Your task to perform on an android device: change the clock display to analog Image 0: 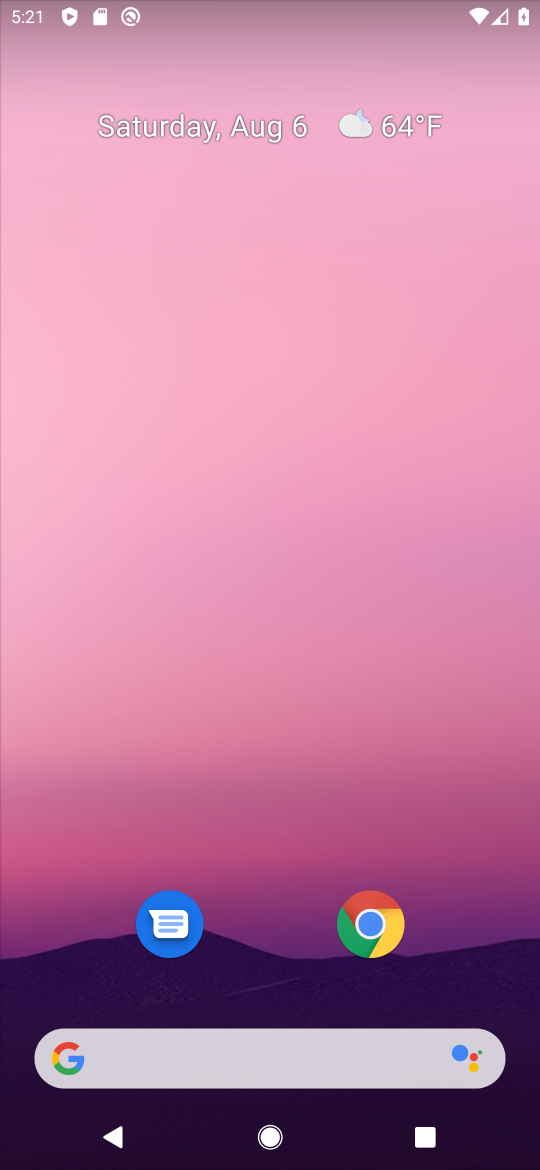
Step 0: drag from (220, 814) to (186, 95)
Your task to perform on an android device: change the clock display to analog Image 1: 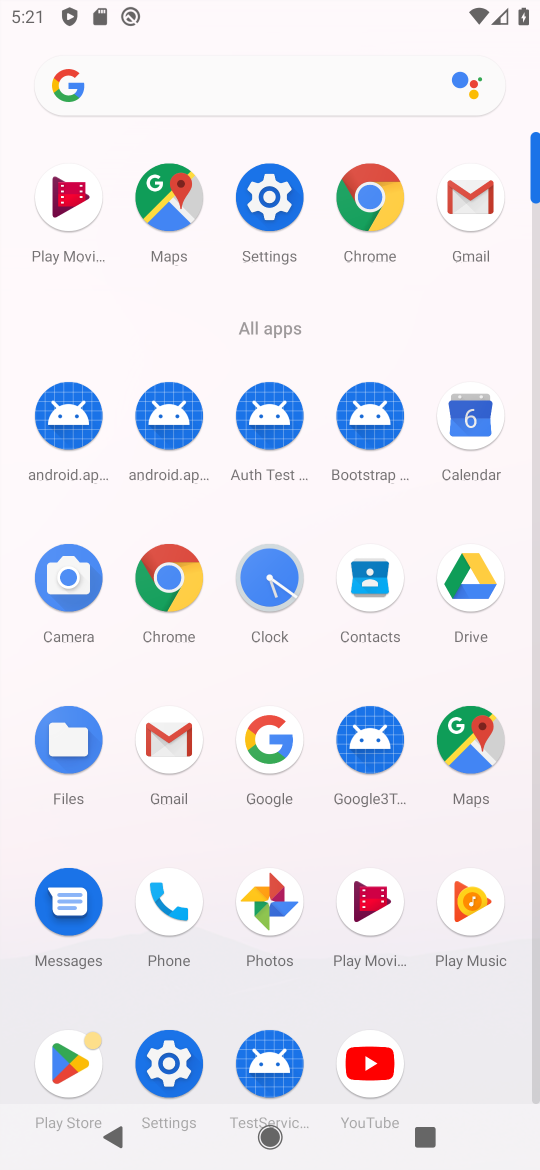
Step 1: click (273, 573)
Your task to perform on an android device: change the clock display to analog Image 2: 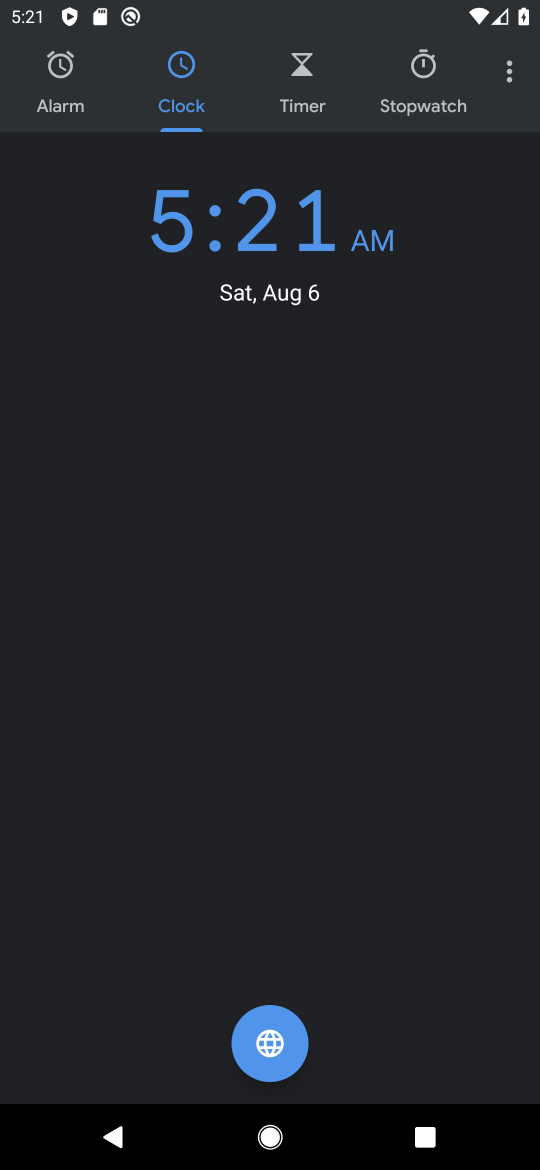
Step 2: click (508, 66)
Your task to perform on an android device: change the clock display to analog Image 3: 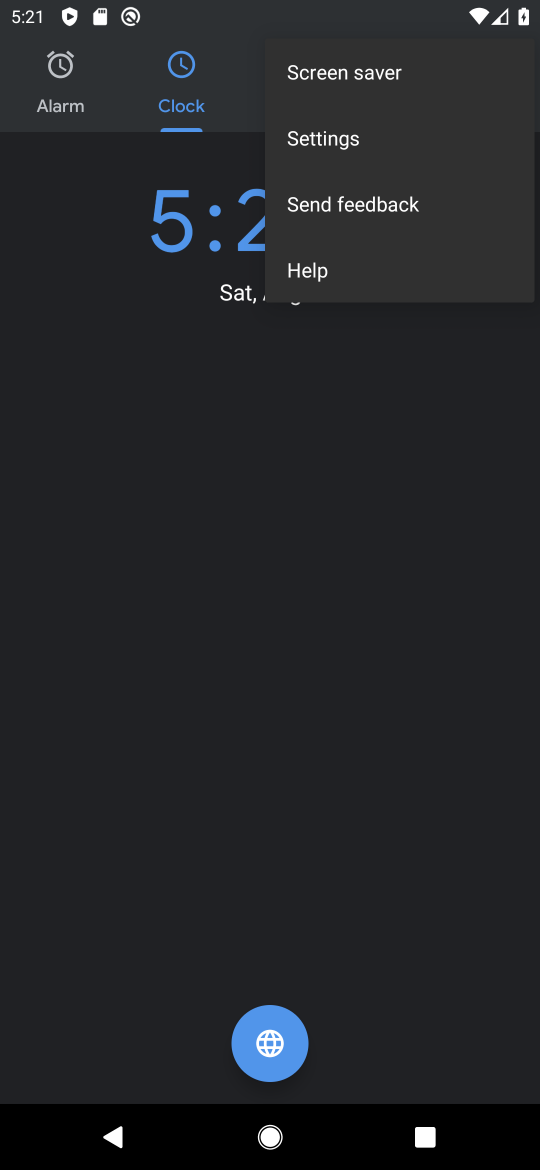
Step 3: click (352, 132)
Your task to perform on an android device: change the clock display to analog Image 4: 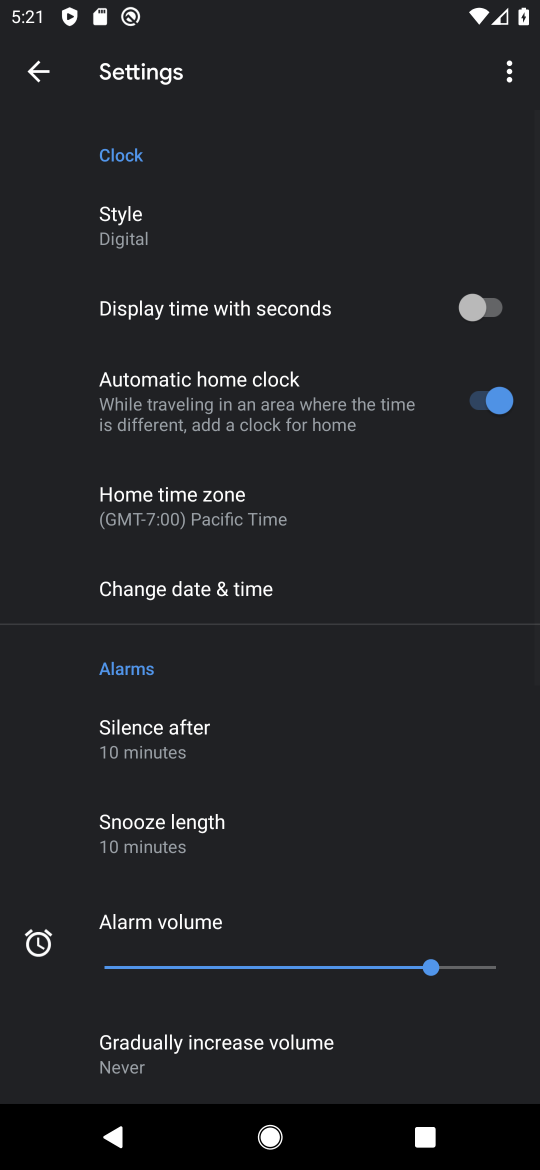
Step 4: click (124, 211)
Your task to perform on an android device: change the clock display to analog Image 5: 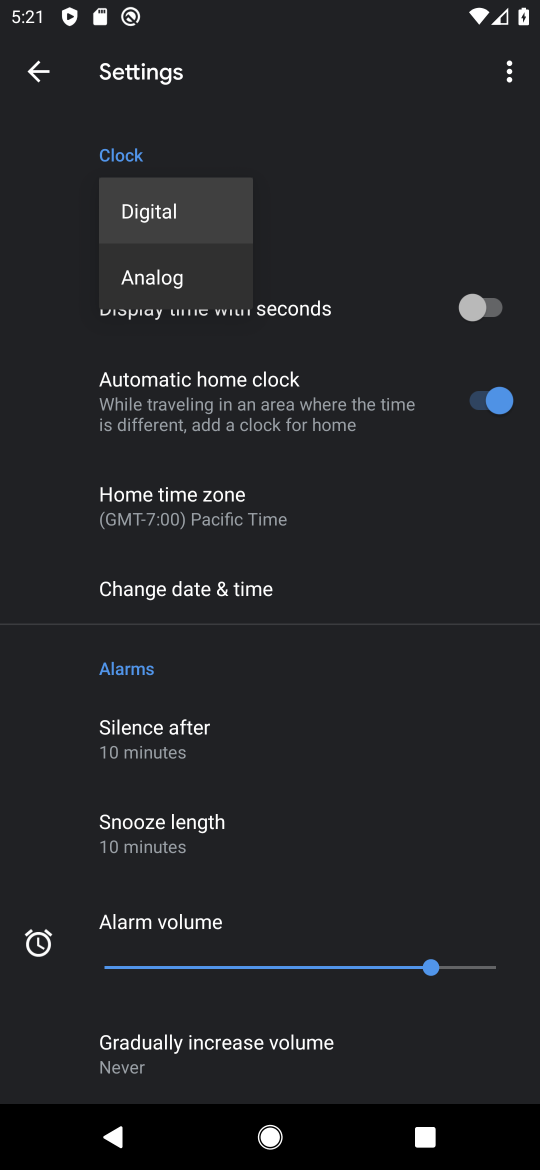
Step 5: click (161, 282)
Your task to perform on an android device: change the clock display to analog Image 6: 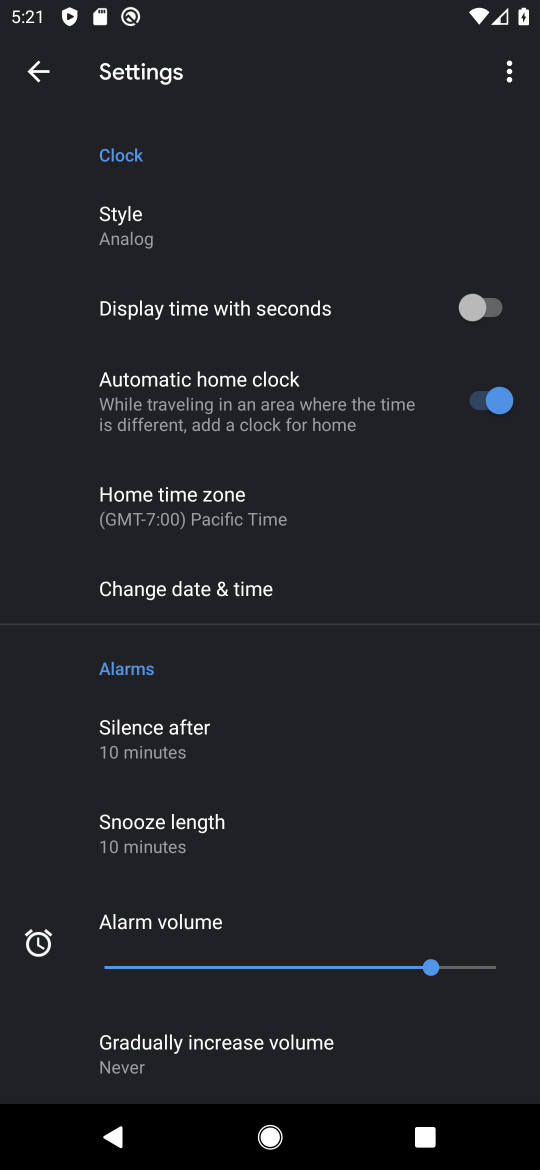
Step 6: task complete